Your task to perform on an android device: Open accessibility settings Image 0: 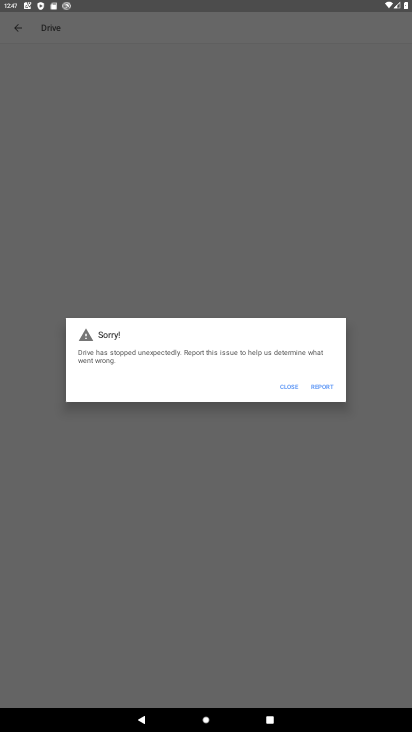
Step 0: press home button
Your task to perform on an android device: Open accessibility settings Image 1: 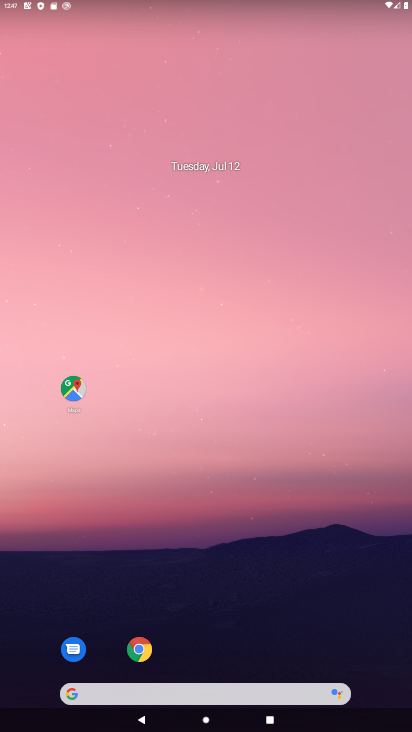
Step 1: drag from (221, 647) to (176, 142)
Your task to perform on an android device: Open accessibility settings Image 2: 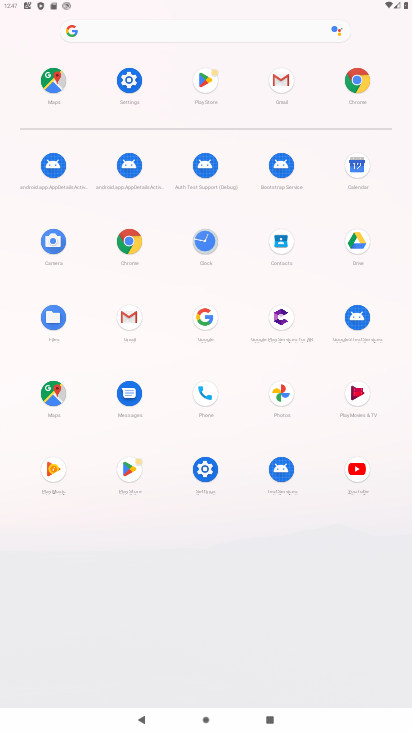
Step 2: click (126, 84)
Your task to perform on an android device: Open accessibility settings Image 3: 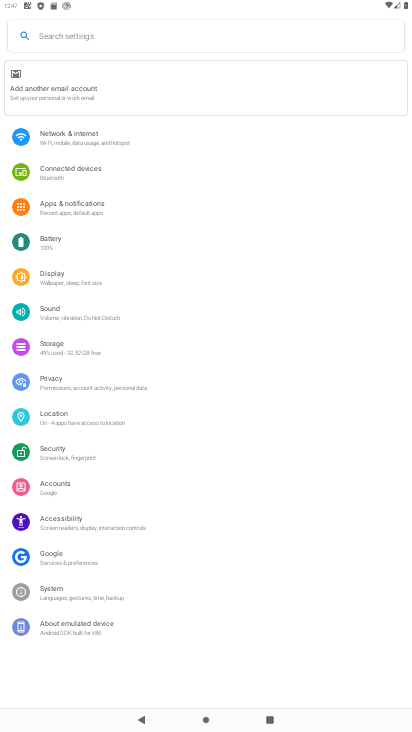
Step 3: click (143, 518)
Your task to perform on an android device: Open accessibility settings Image 4: 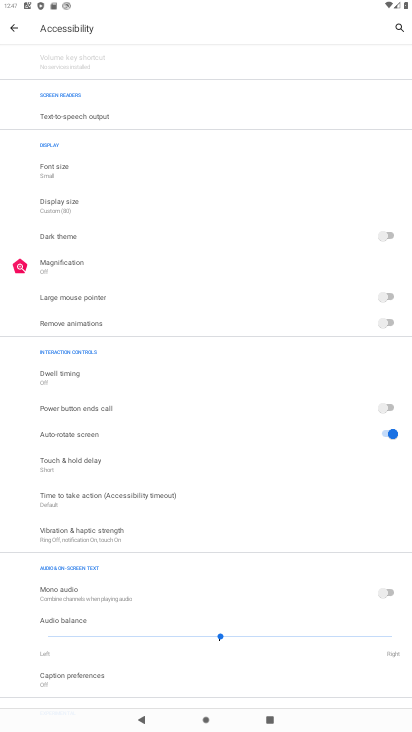
Step 4: task complete